Your task to perform on an android device: Open the calendar app, open the side menu, and click the "Day" option Image 0: 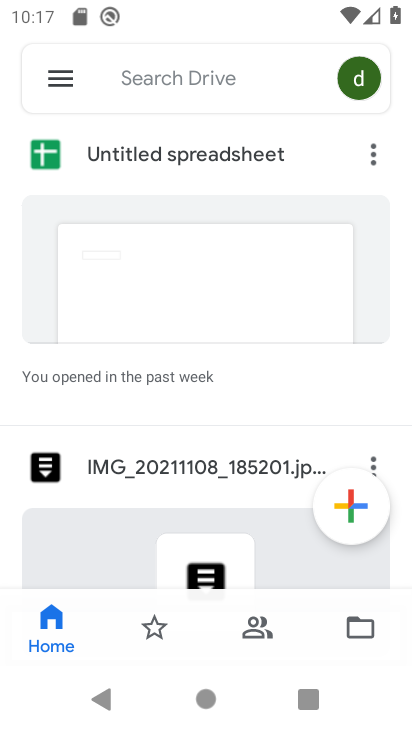
Step 0: press home button
Your task to perform on an android device: Open the calendar app, open the side menu, and click the "Day" option Image 1: 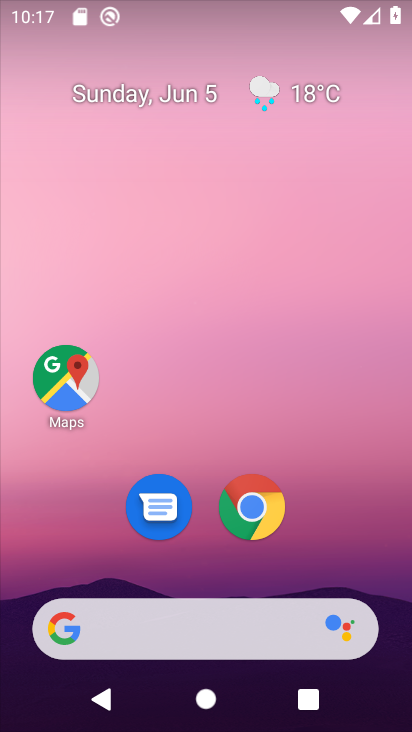
Step 1: drag from (192, 593) to (251, 23)
Your task to perform on an android device: Open the calendar app, open the side menu, and click the "Day" option Image 2: 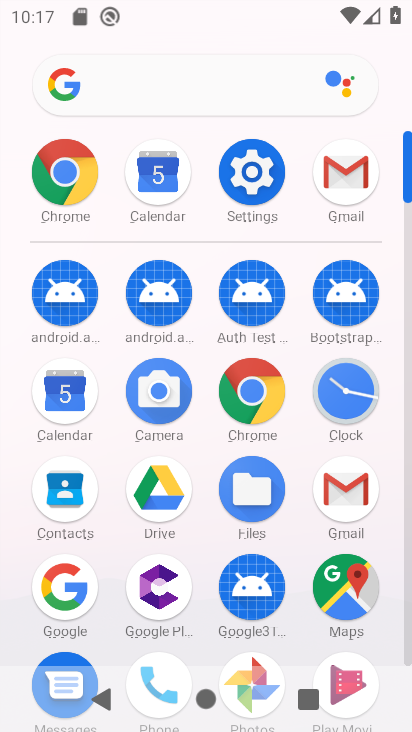
Step 2: click (76, 428)
Your task to perform on an android device: Open the calendar app, open the side menu, and click the "Day" option Image 3: 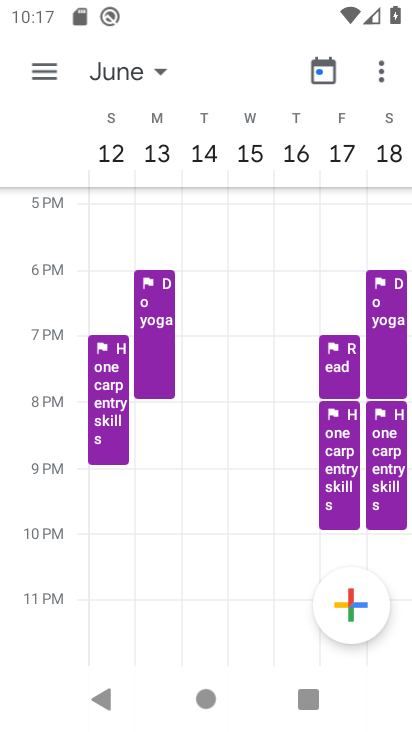
Step 3: drag from (175, 157) to (374, 78)
Your task to perform on an android device: Open the calendar app, open the side menu, and click the "Day" option Image 4: 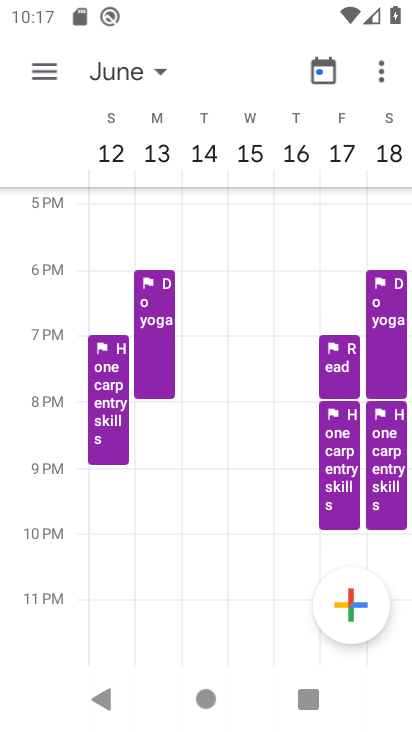
Step 4: drag from (134, 144) to (411, 230)
Your task to perform on an android device: Open the calendar app, open the side menu, and click the "Day" option Image 5: 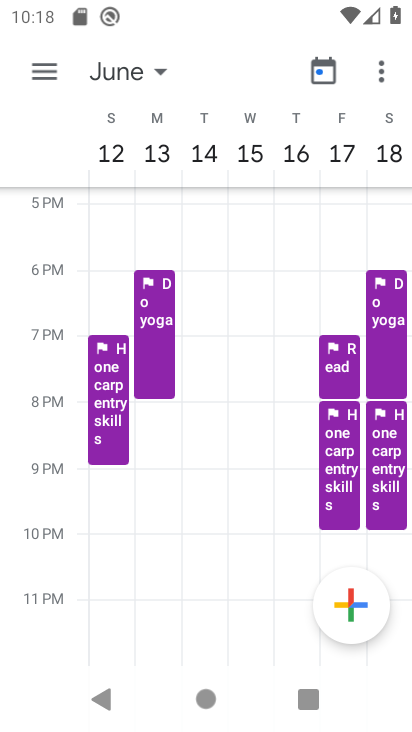
Step 5: drag from (119, 168) to (409, 200)
Your task to perform on an android device: Open the calendar app, open the side menu, and click the "Day" option Image 6: 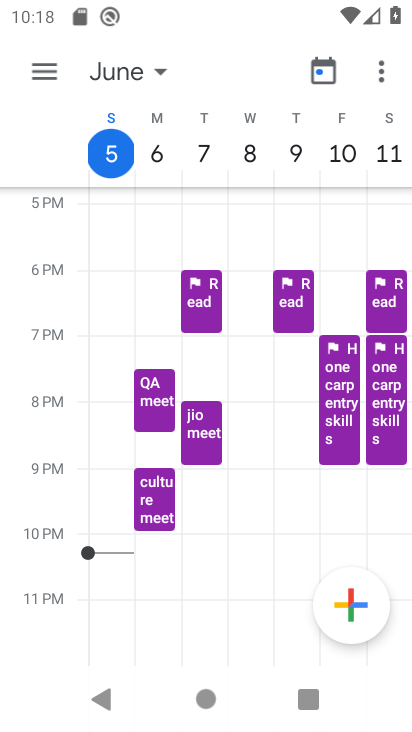
Step 6: click (40, 79)
Your task to perform on an android device: Open the calendar app, open the side menu, and click the "Day" option Image 7: 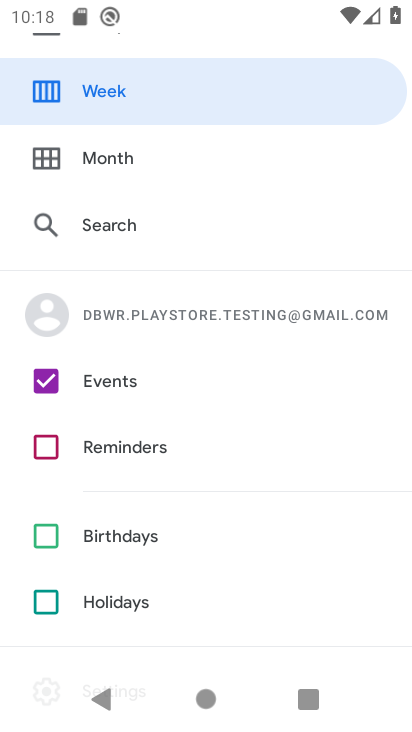
Step 7: drag from (119, 96) to (130, 545)
Your task to perform on an android device: Open the calendar app, open the side menu, and click the "Day" option Image 8: 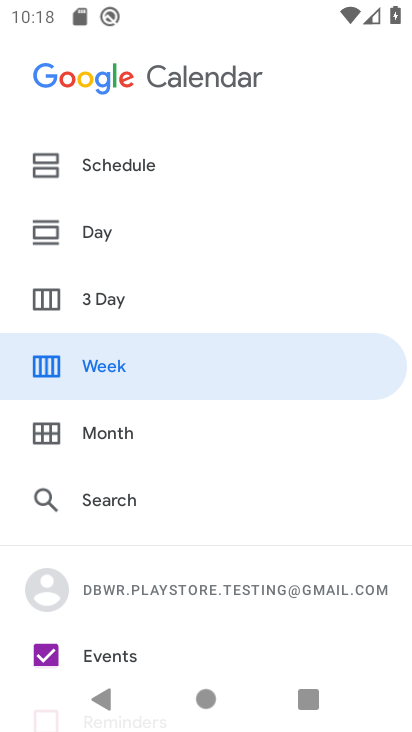
Step 8: click (117, 230)
Your task to perform on an android device: Open the calendar app, open the side menu, and click the "Day" option Image 9: 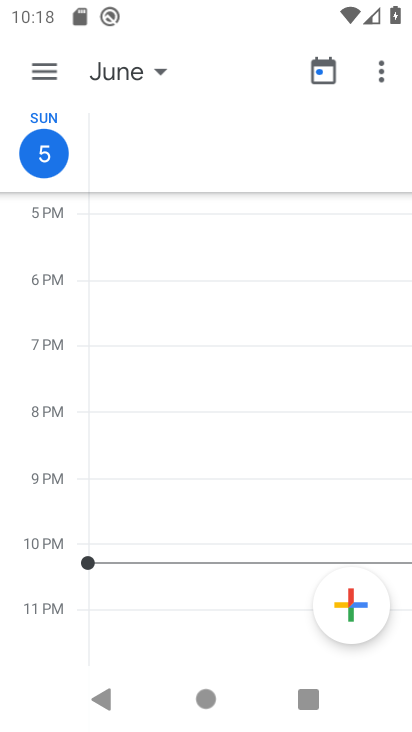
Step 9: task complete